Your task to perform on an android device: Show me popular games on the Play Store Image 0: 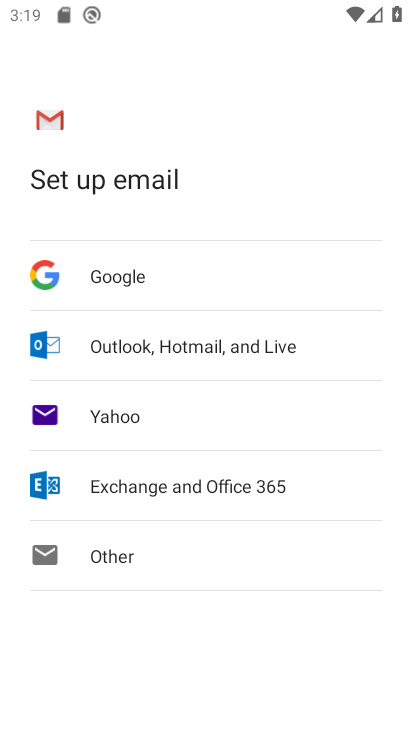
Step 0: press home button
Your task to perform on an android device: Show me popular games on the Play Store Image 1: 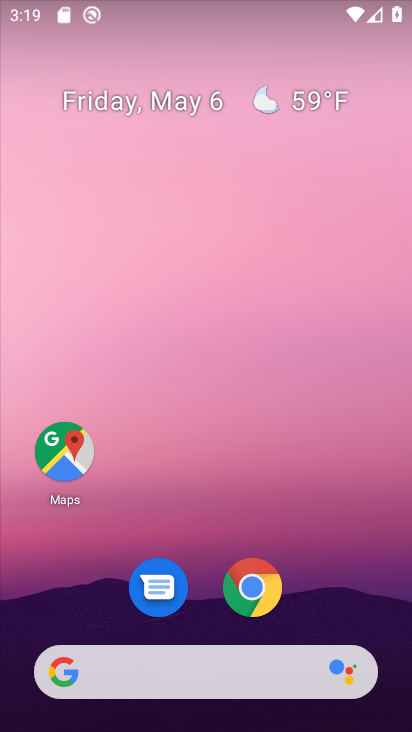
Step 1: drag from (297, 527) to (310, 128)
Your task to perform on an android device: Show me popular games on the Play Store Image 2: 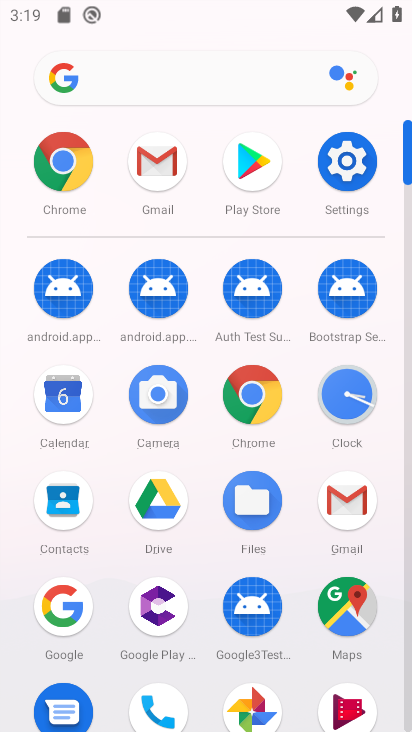
Step 2: drag from (224, 533) to (249, 225)
Your task to perform on an android device: Show me popular games on the Play Store Image 3: 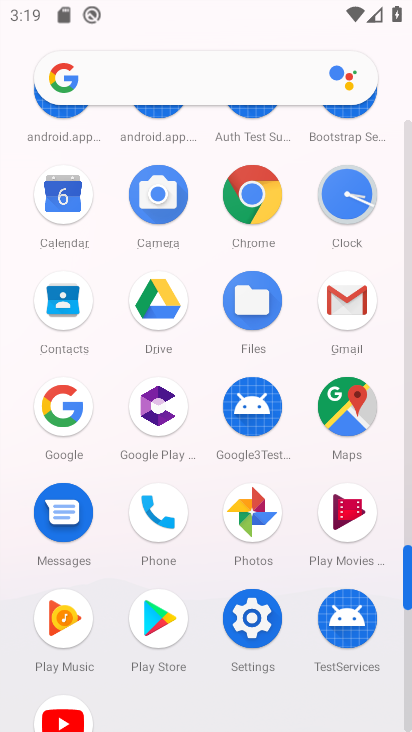
Step 3: click (162, 611)
Your task to perform on an android device: Show me popular games on the Play Store Image 4: 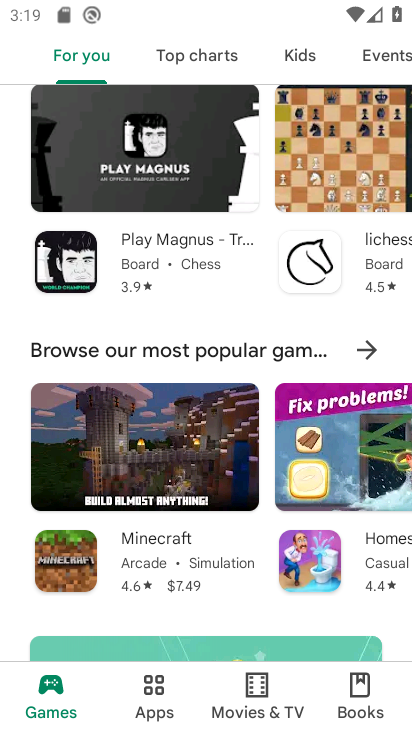
Step 4: task complete